Your task to perform on an android device: What is the recent news? Image 0: 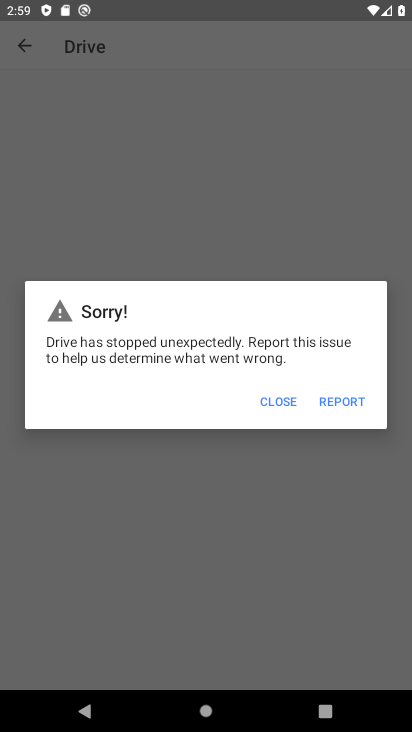
Step 0: drag from (257, 703) to (255, 341)
Your task to perform on an android device: What is the recent news? Image 1: 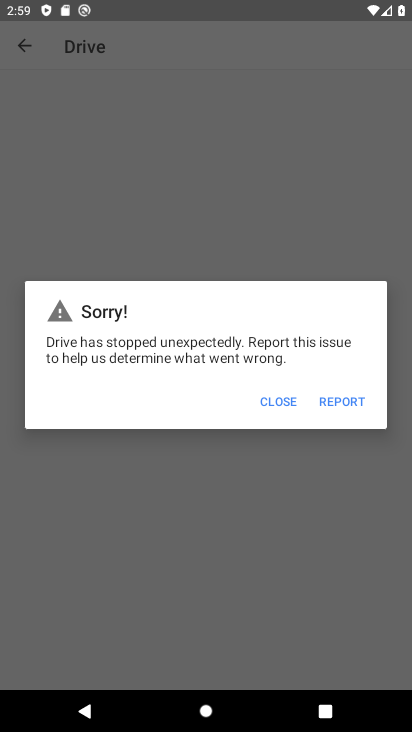
Step 1: press home button
Your task to perform on an android device: What is the recent news? Image 2: 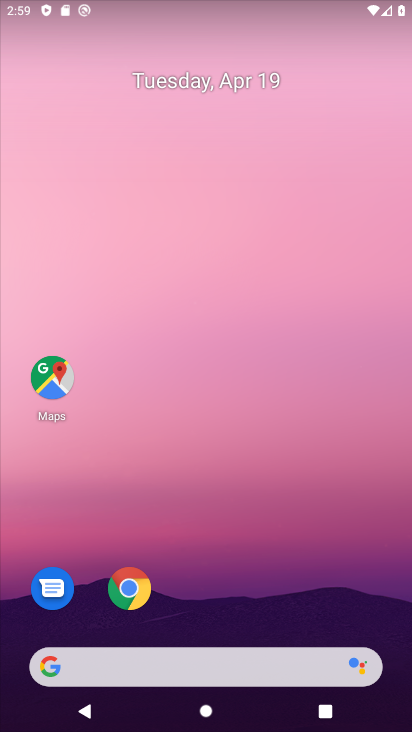
Step 2: drag from (251, 484) to (317, 221)
Your task to perform on an android device: What is the recent news? Image 3: 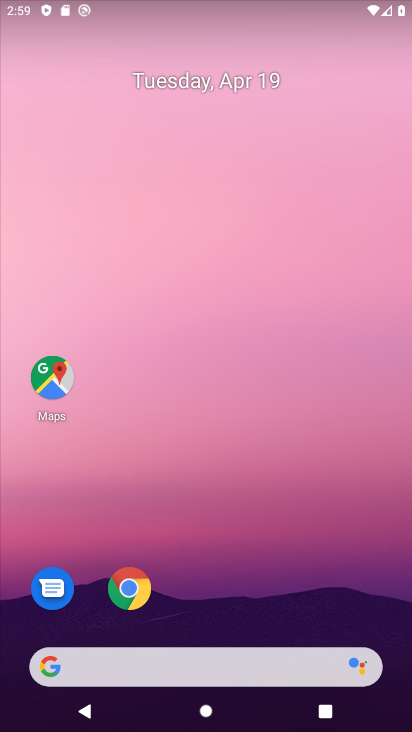
Step 3: drag from (251, 602) to (223, 155)
Your task to perform on an android device: What is the recent news? Image 4: 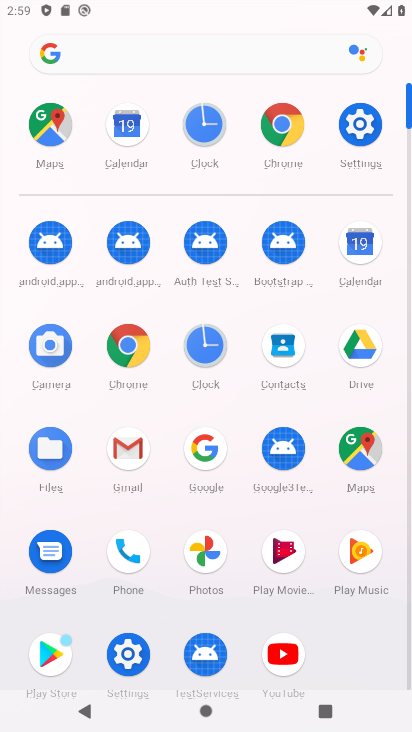
Step 4: click (297, 144)
Your task to perform on an android device: What is the recent news? Image 5: 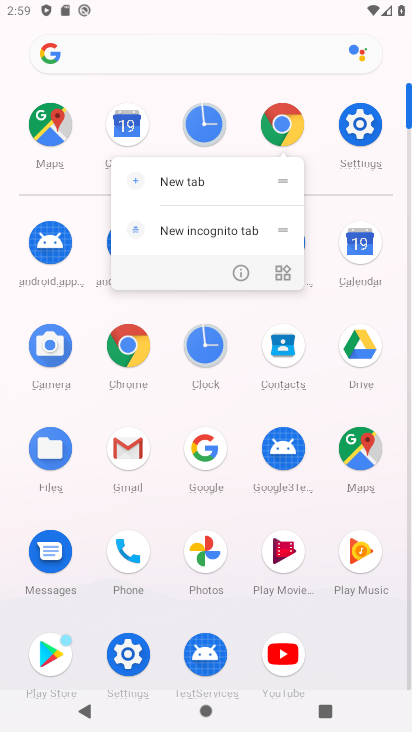
Step 5: click (283, 137)
Your task to perform on an android device: What is the recent news? Image 6: 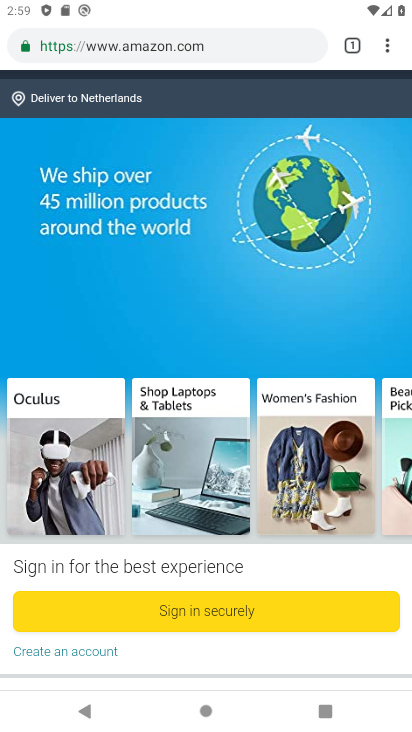
Step 6: click (381, 52)
Your task to perform on an android device: What is the recent news? Image 7: 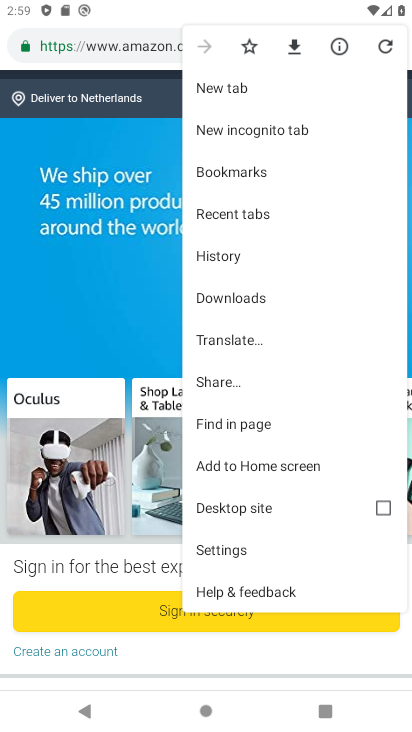
Step 7: click (245, 89)
Your task to perform on an android device: What is the recent news? Image 8: 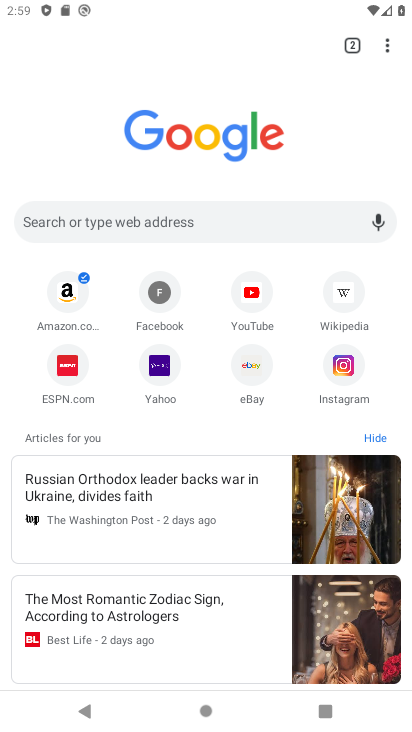
Step 8: click (123, 216)
Your task to perform on an android device: What is the recent news? Image 9: 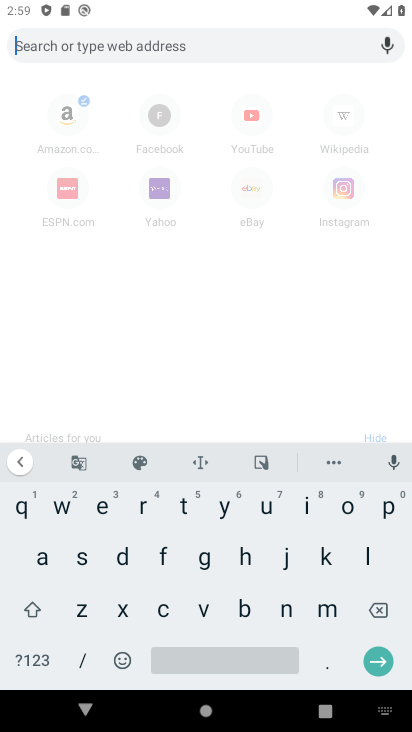
Step 9: click (135, 506)
Your task to perform on an android device: What is the recent news? Image 10: 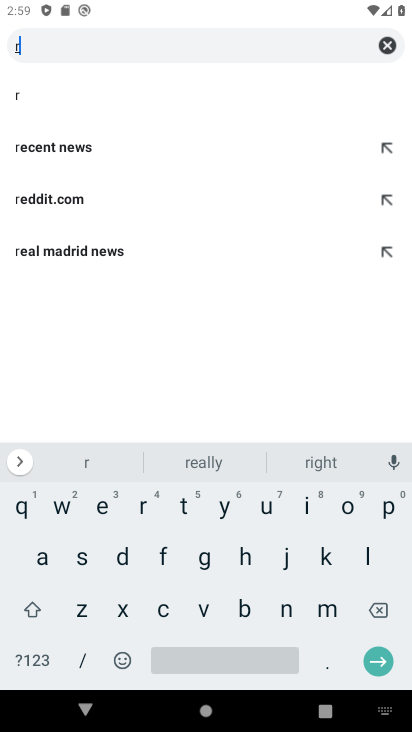
Step 10: click (106, 519)
Your task to perform on an android device: What is the recent news? Image 11: 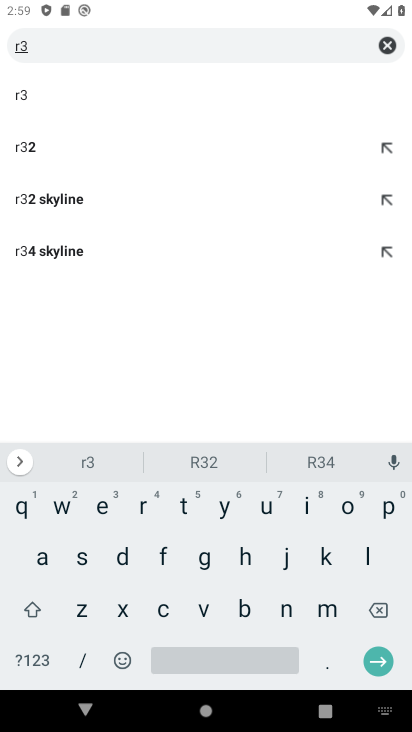
Step 11: click (385, 621)
Your task to perform on an android device: What is the recent news? Image 12: 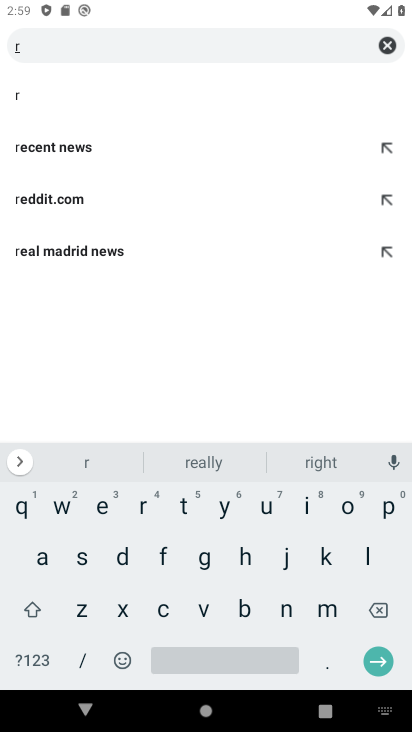
Step 12: click (74, 147)
Your task to perform on an android device: What is the recent news? Image 13: 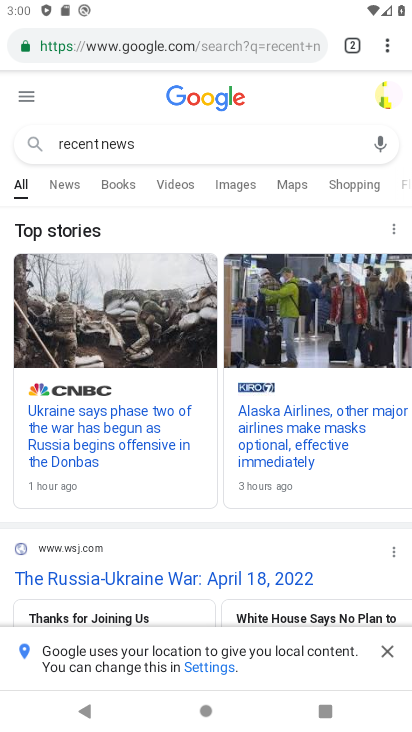
Step 13: task complete